Your task to perform on an android device: change your default location settings in chrome Image 0: 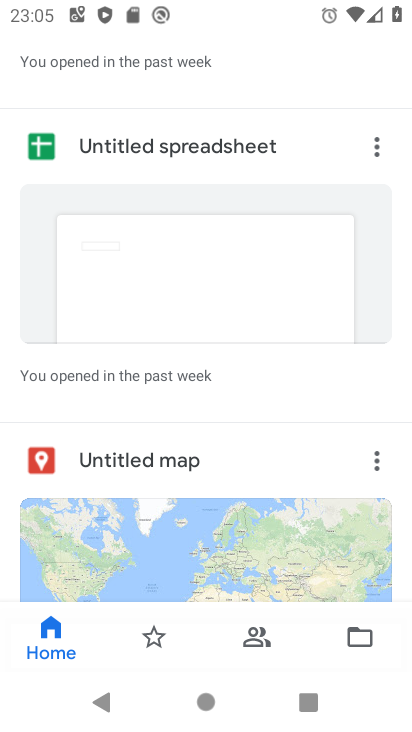
Step 0: press home button
Your task to perform on an android device: change your default location settings in chrome Image 1: 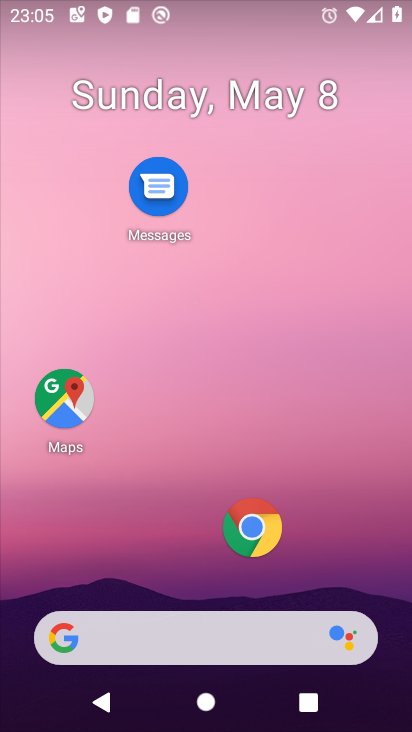
Step 1: click (253, 527)
Your task to perform on an android device: change your default location settings in chrome Image 2: 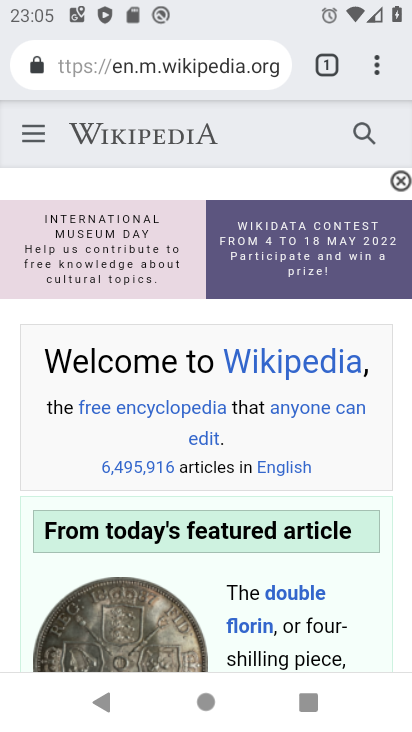
Step 2: click (371, 65)
Your task to perform on an android device: change your default location settings in chrome Image 3: 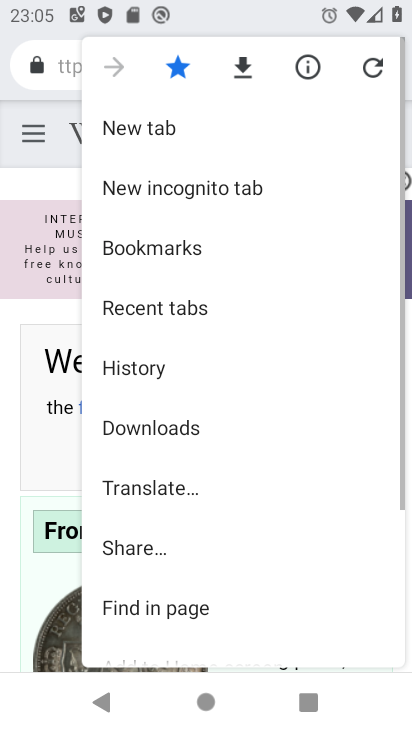
Step 3: drag from (194, 624) to (273, 165)
Your task to perform on an android device: change your default location settings in chrome Image 4: 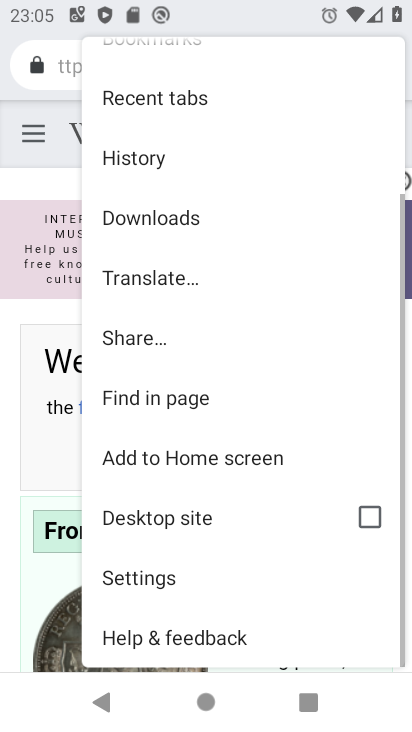
Step 4: click (163, 573)
Your task to perform on an android device: change your default location settings in chrome Image 5: 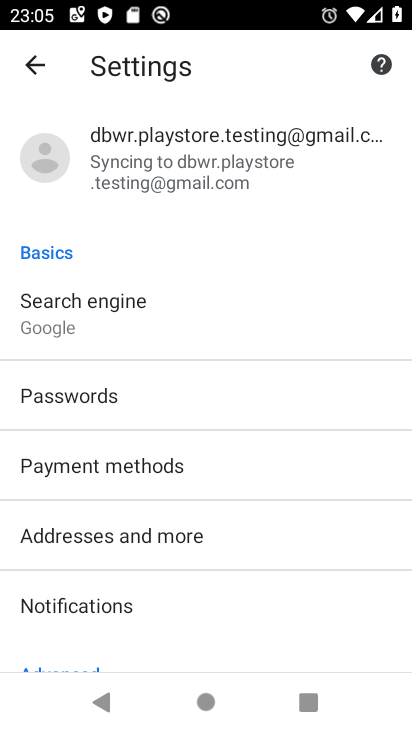
Step 5: click (161, 325)
Your task to perform on an android device: change your default location settings in chrome Image 6: 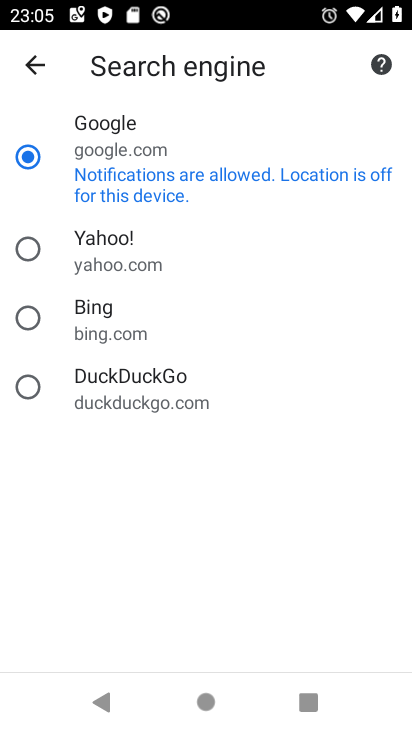
Step 6: task complete